Your task to perform on an android device: Show me productivity apps on the Play Store Image 0: 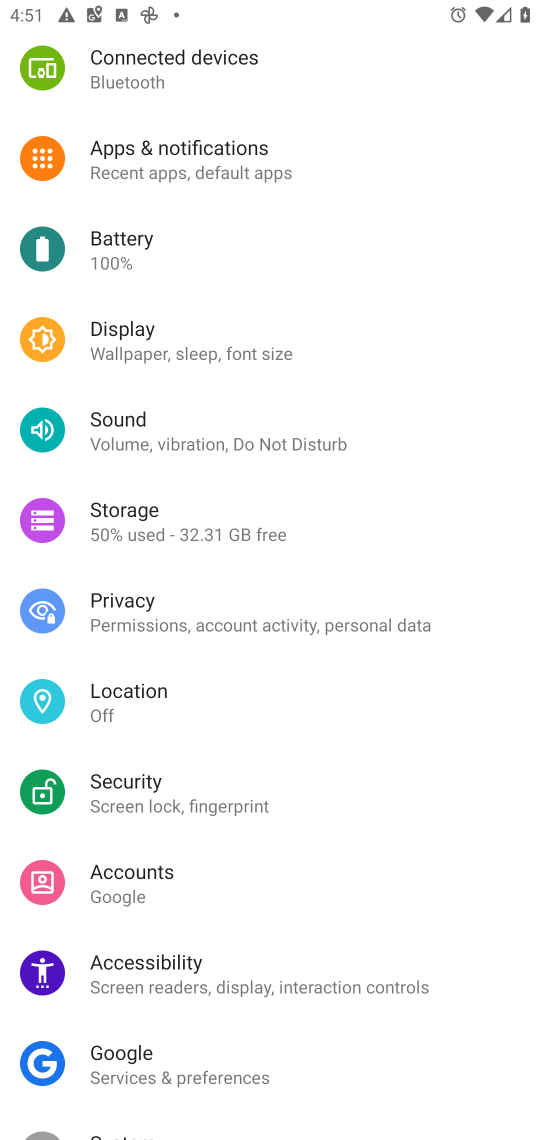
Step 0: press home button
Your task to perform on an android device: Show me productivity apps on the Play Store Image 1: 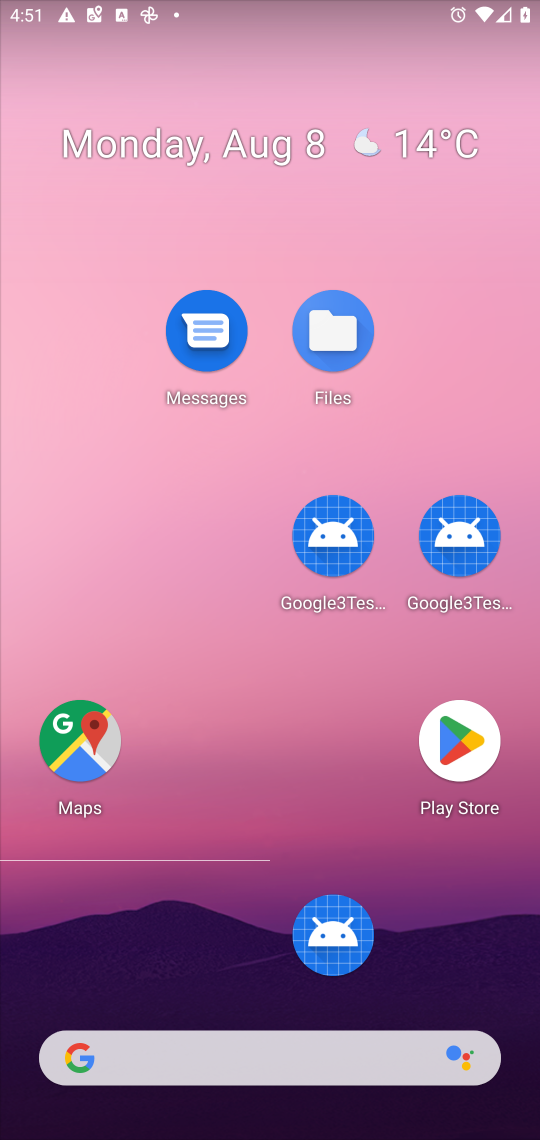
Step 1: drag from (221, 1077) to (275, 135)
Your task to perform on an android device: Show me productivity apps on the Play Store Image 2: 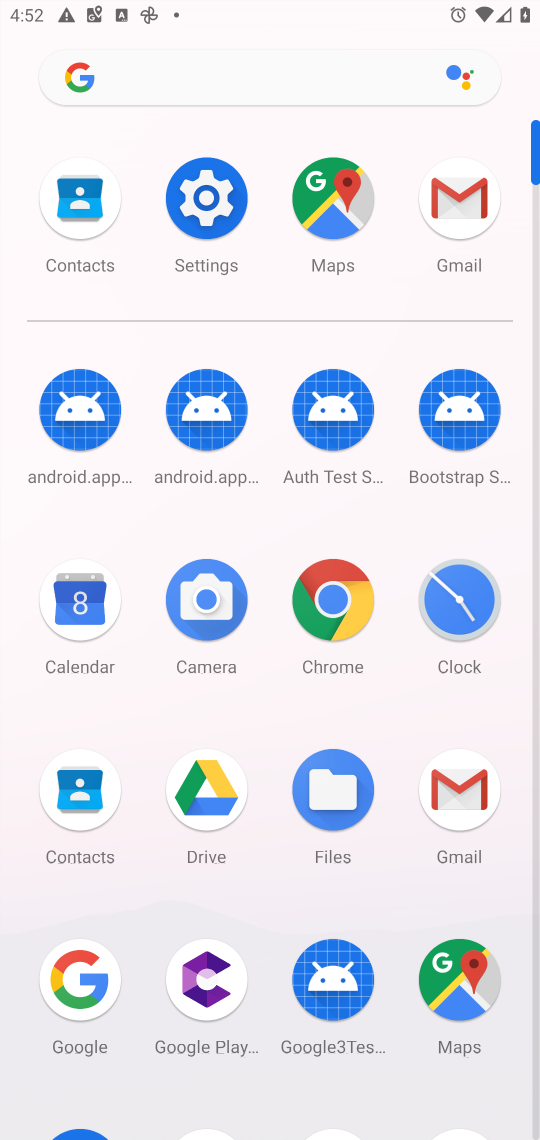
Step 2: drag from (395, 1047) to (391, 164)
Your task to perform on an android device: Show me productivity apps on the Play Store Image 3: 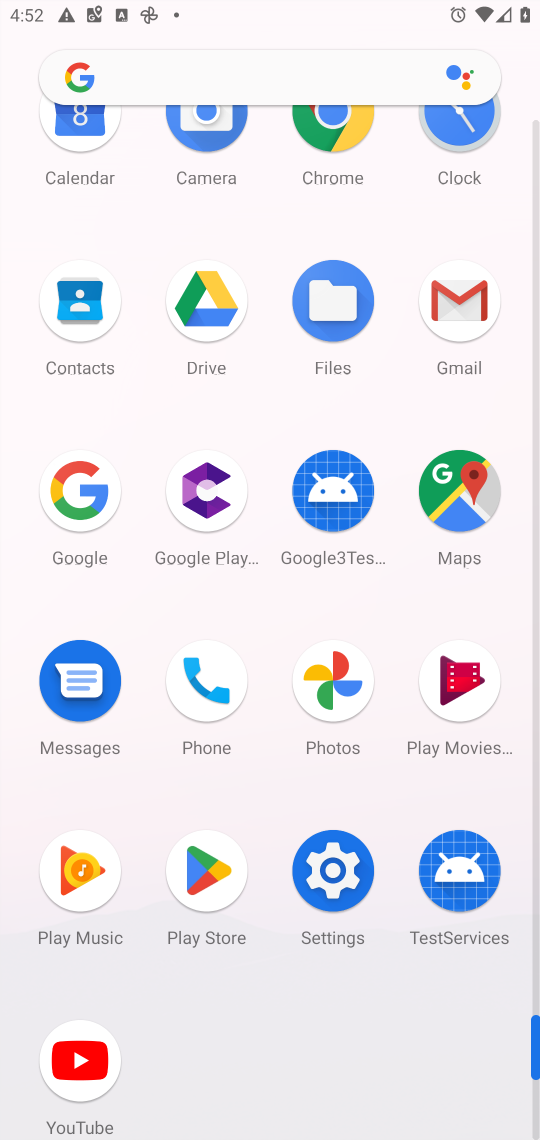
Step 3: click (220, 887)
Your task to perform on an android device: Show me productivity apps on the Play Store Image 4: 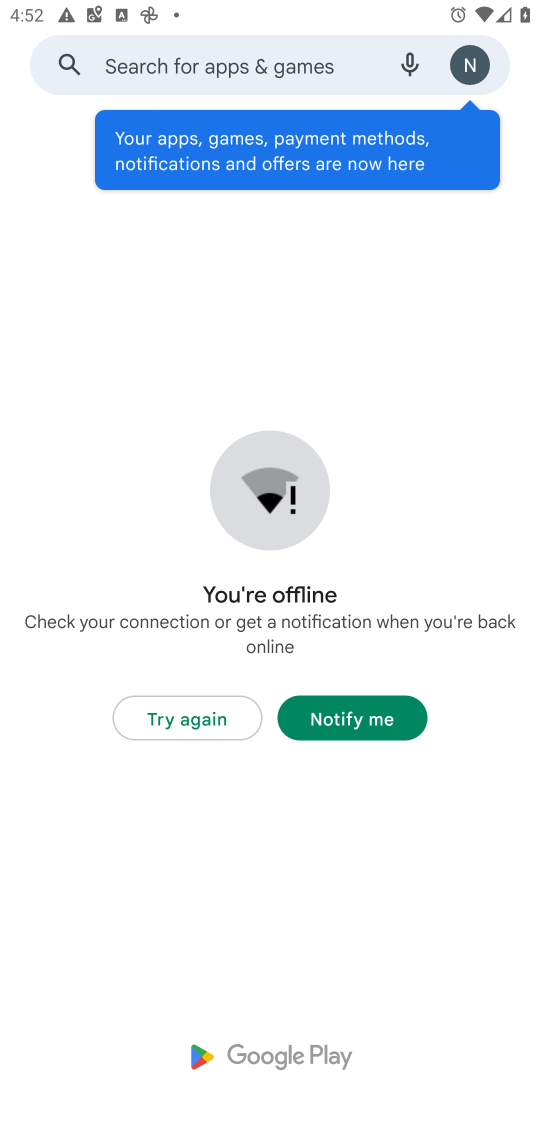
Step 4: click (226, 717)
Your task to perform on an android device: Show me productivity apps on the Play Store Image 5: 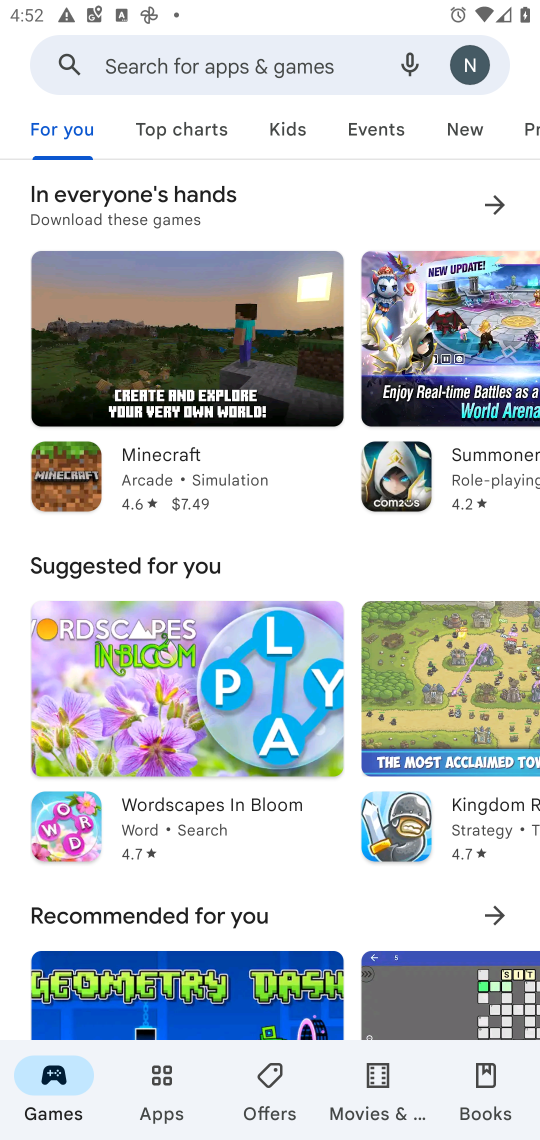
Step 5: click (155, 1090)
Your task to perform on an android device: Show me productivity apps on the Play Store Image 6: 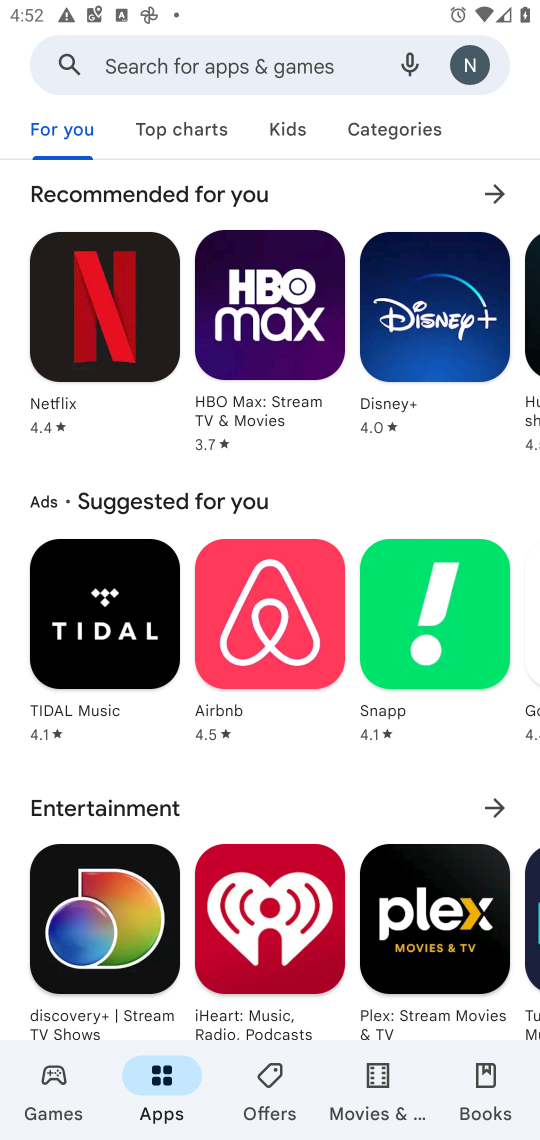
Step 6: drag from (301, 799) to (350, 114)
Your task to perform on an android device: Show me productivity apps on the Play Store Image 7: 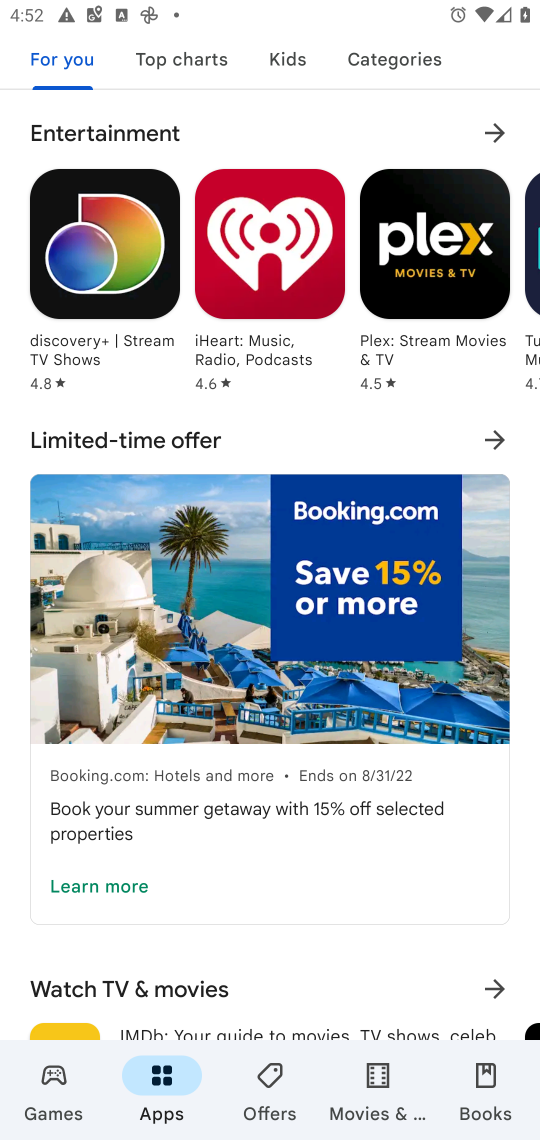
Step 7: drag from (342, 910) to (397, 239)
Your task to perform on an android device: Show me productivity apps on the Play Store Image 8: 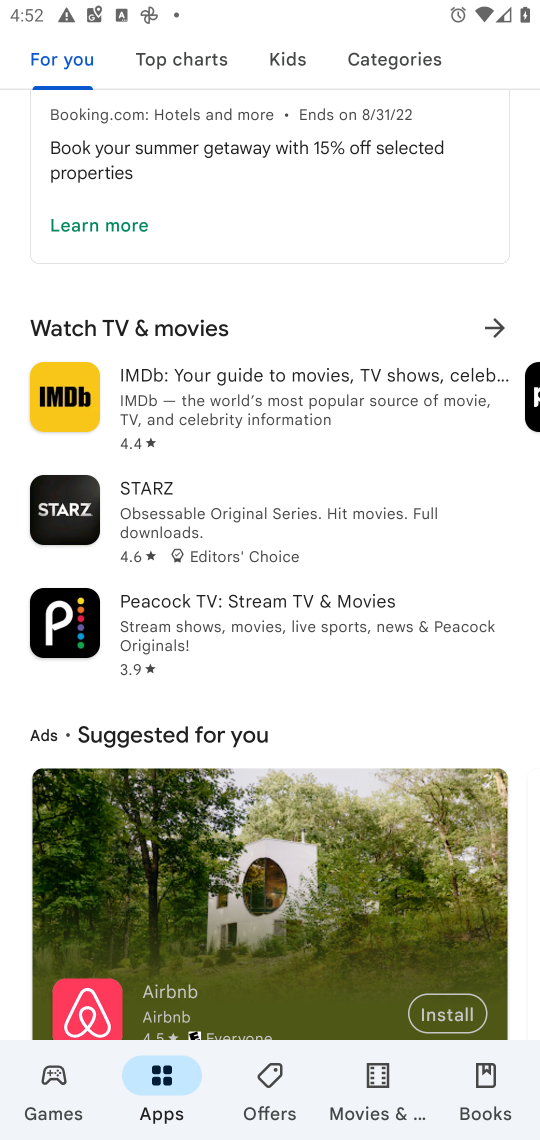
Step 8: drag from (472, 715) to (413, 191)
Your task to perform on an android device: Show me productivity apps on the Play Store Image 9: 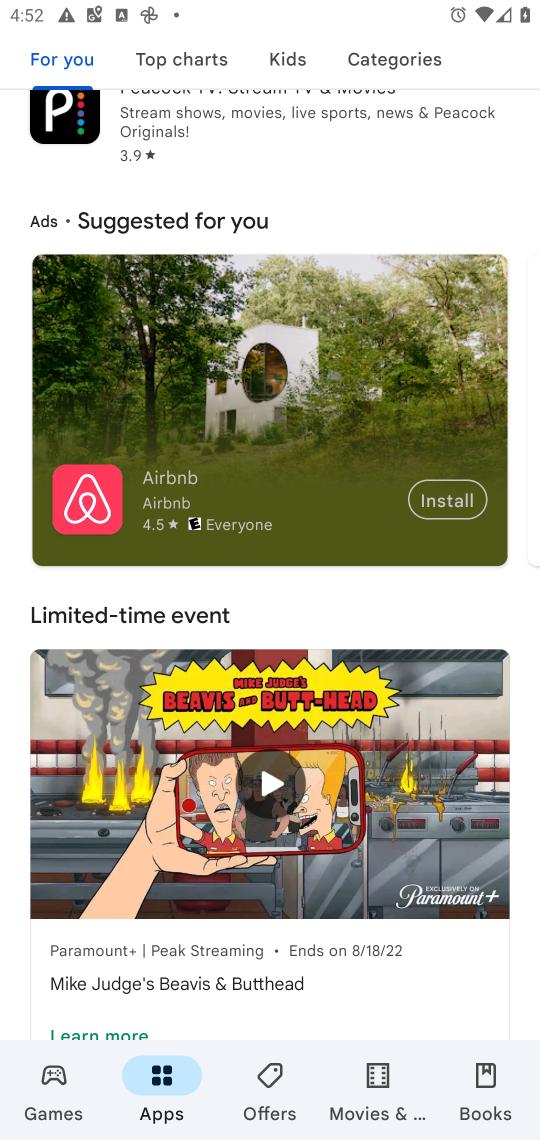
Step 9: drag from (442, 982) to (428, 335)
Your task to perform on an android device: Show me productivity apps on the Play Store Image 10: 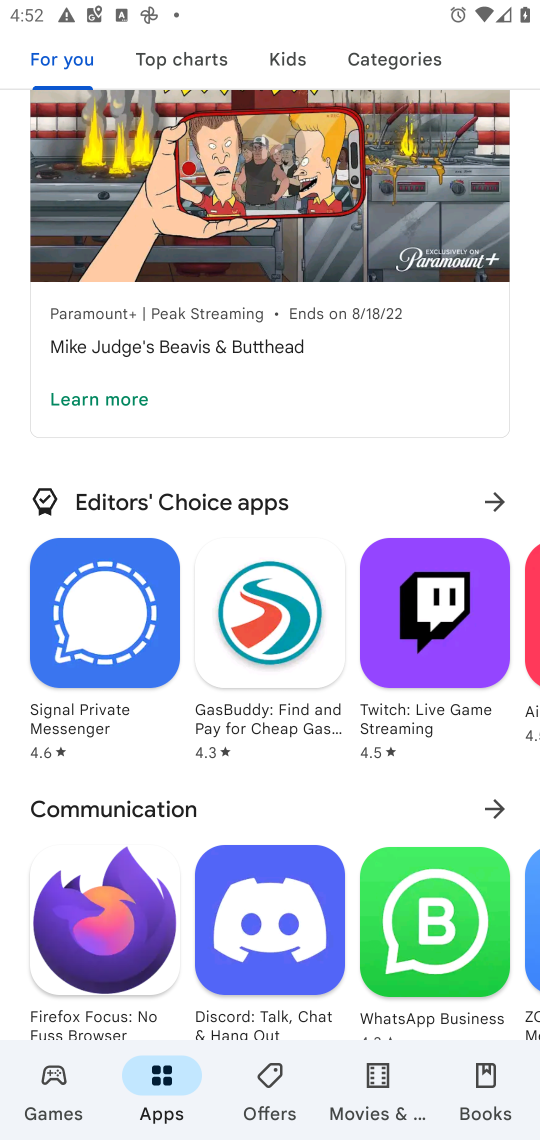
Step 10: drag from (389, 800) to (381, 219)
Your task to perform on an android device: Show me productivity apps on the Play Store Image 11: 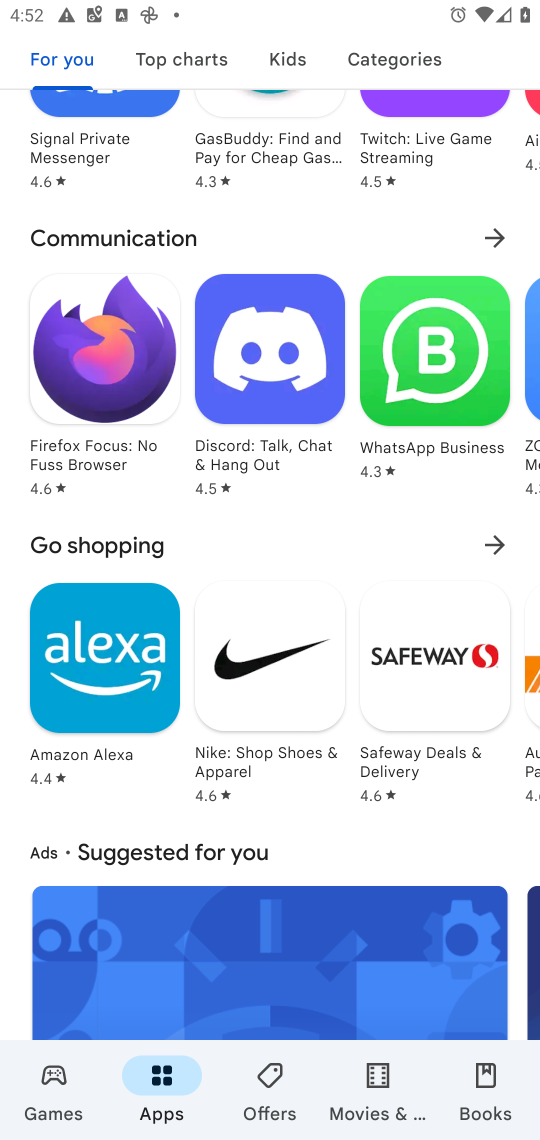
Step 11: drag from (360, 835) to (338, 3)
Your task to perform on an android device: Show me productivity apps on the Play Store Image 12: 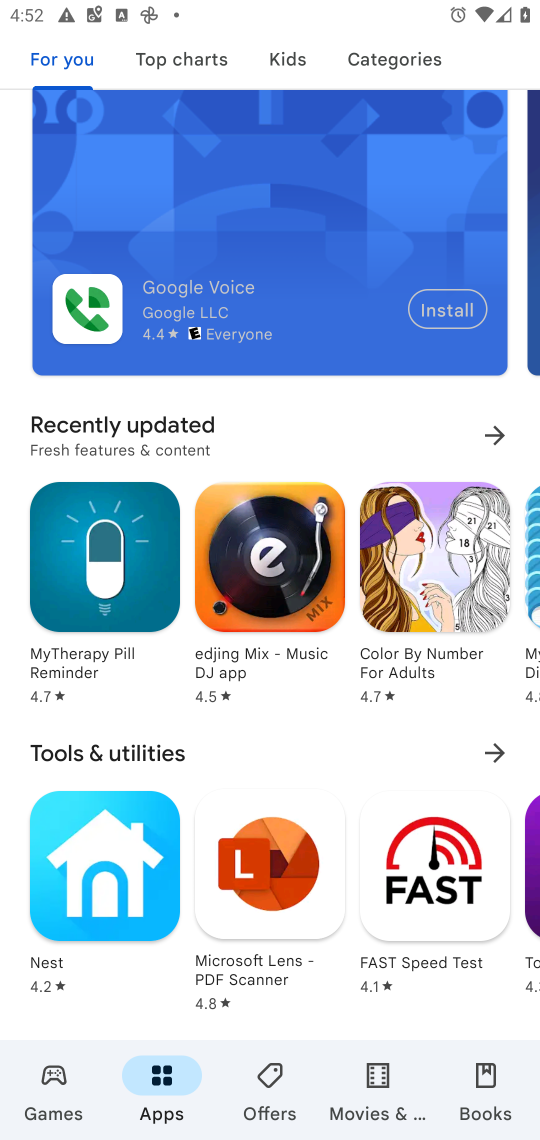
Step 12: drag from (398, 743) to (412, 16)
Your task to perform on an android device: Show me productivity apps on the Play Store Image 13: 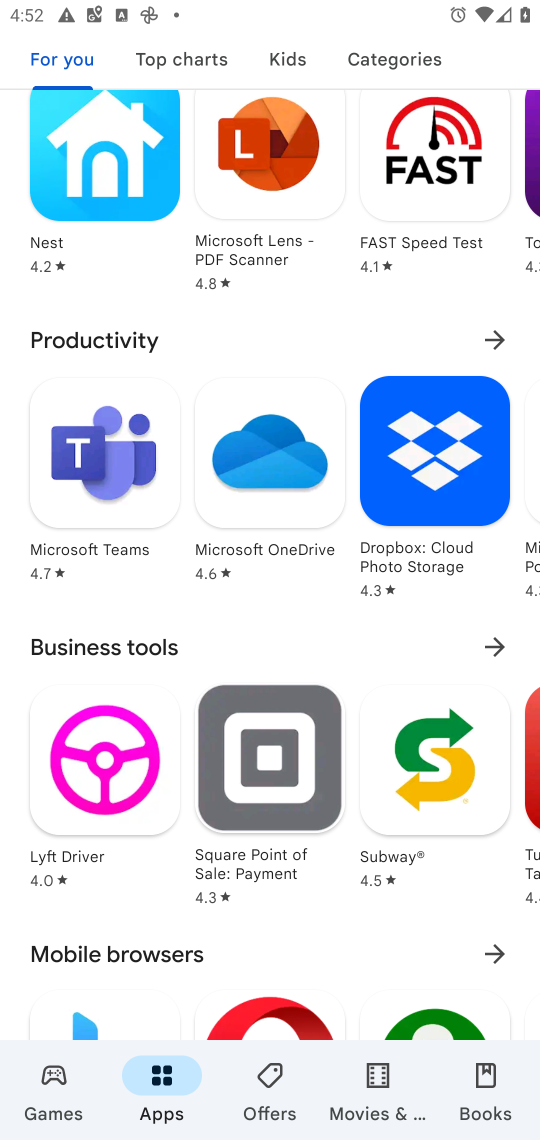
Step 13: click (492, 342)
Your task to perform on an android device: Show me productivity apps on the Play Store Image 14: 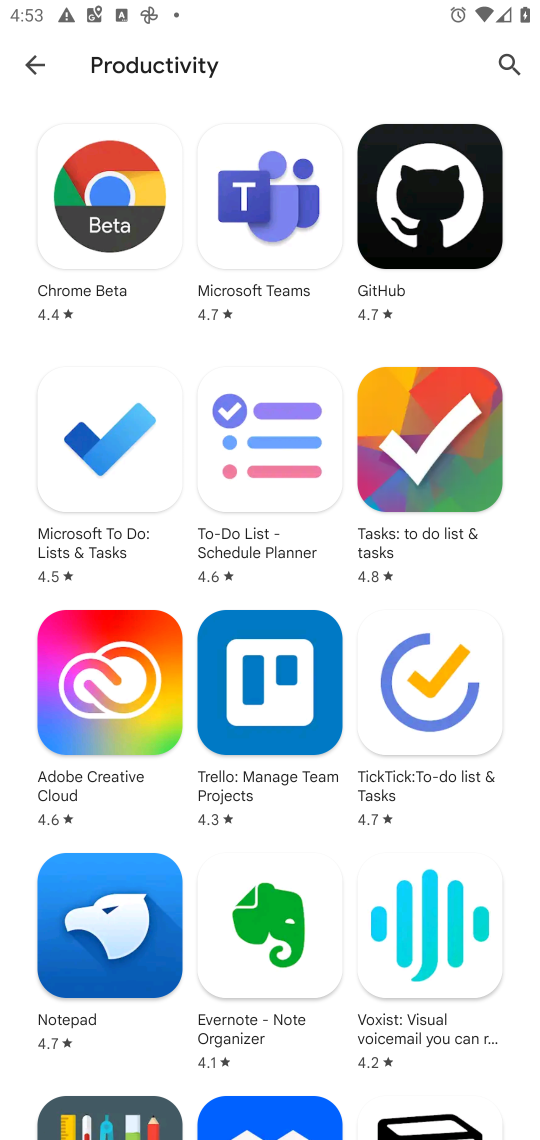
Step 14: task complete